Your task to perform on an android device: toggle location history Image 0: 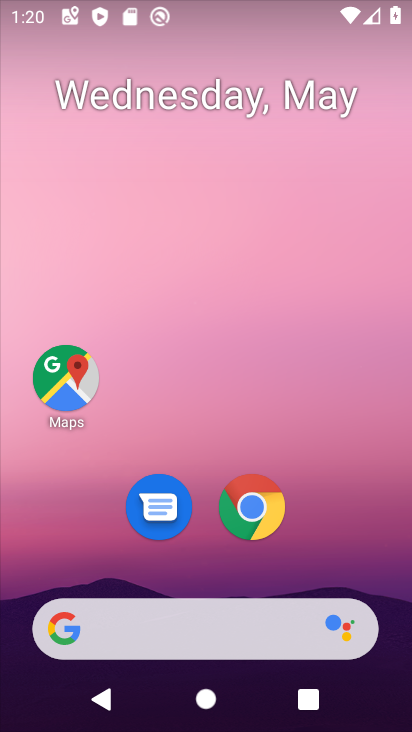
Step 0: drag from (206, 562) to (232, 221)
Your task to perform on an android device: toggle location history Image 1: 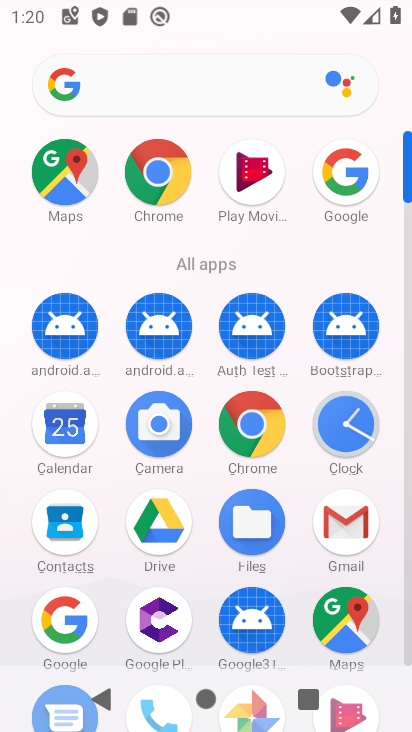
Step 1: drag from (203, 281) to (213, 115)
Your task to perform on an android device: toggle location history Image 2: 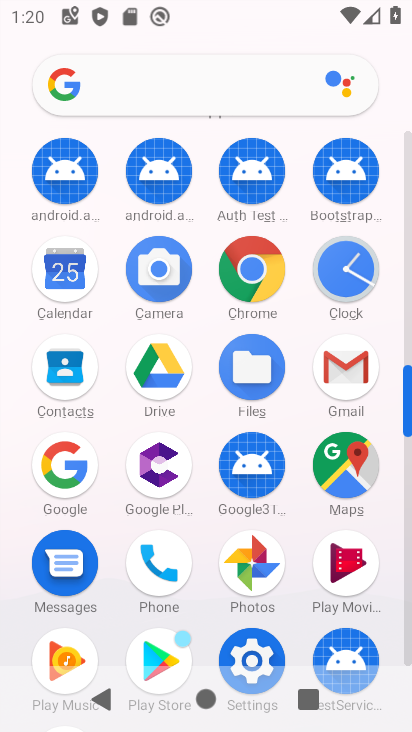
Step 2: click (248, 650)
Your task to perform on an android device: toggle location history Image 3: 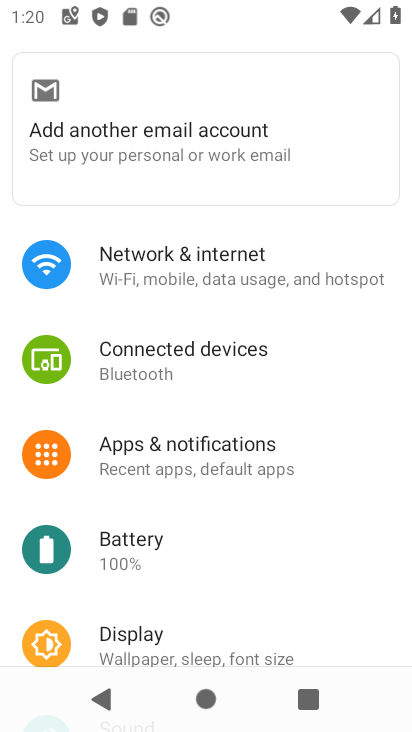
Step 3: drag from (190, 593) to (243, 275)
Your task to perform on an android device: toggle location history Image 4: 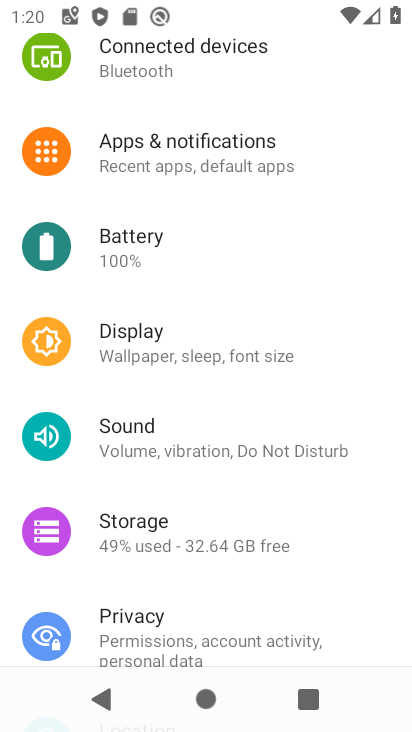
Step 4: drag from (226, 562) to (232, 281)
Your task to perform on an android device: toggle location history Image 5: 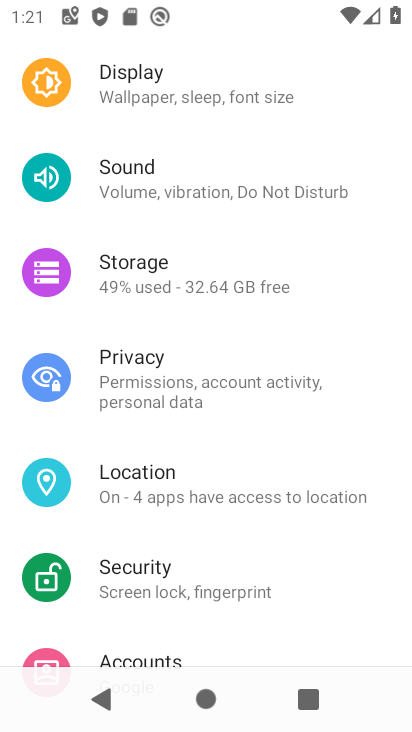
Step 5: click (198, 502)
Your task to perform on an android device: toggle location history Image 6: 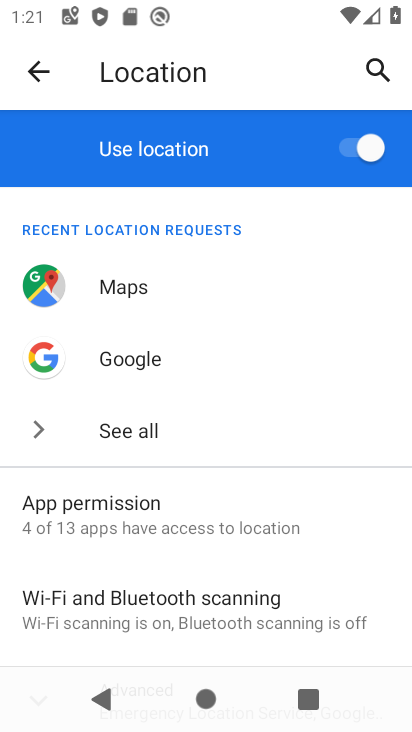
Step 6: drag from (174, 574) to (242, 355)
Your task to perform on an android device: toggle location history Image 7: 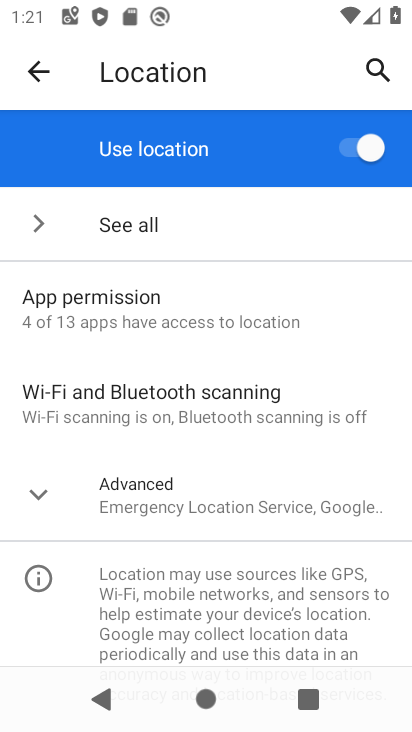
Step 7: click (196, 499)
Your task to perform on an android device: toggle location history Image 8: 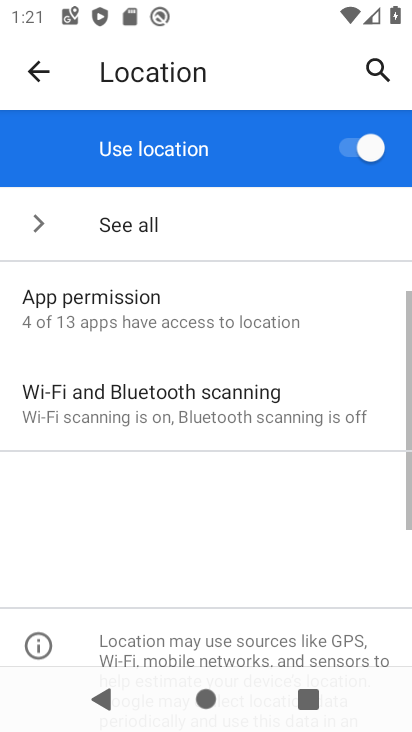
Step 8: drag from (196, 496) to (228, 281)
Your task to perform on an android device: toggle location history Image 9: 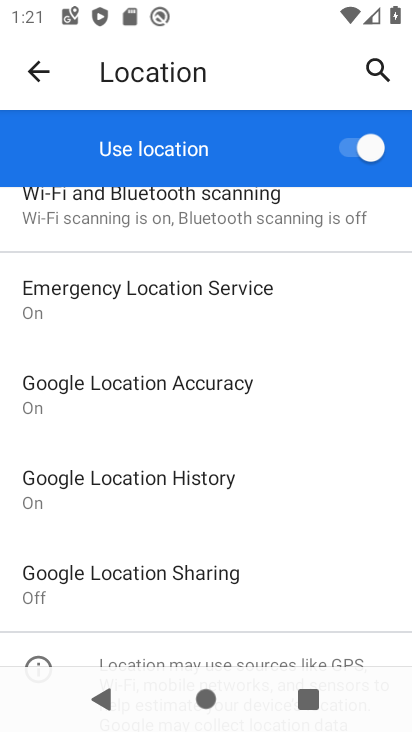
Step 9: click (156, 500)
Your task to perform on an android device: toggle location history Image 10: 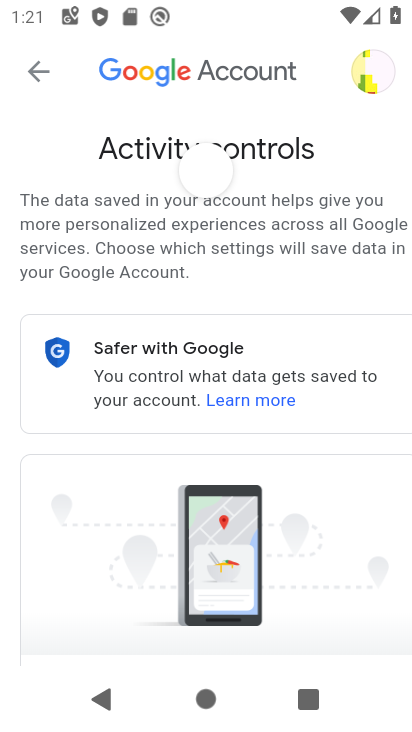
Step 10: drag from (293, 502) to (299, 275)
Your task to perform on an android device: toggle location history Image 11: 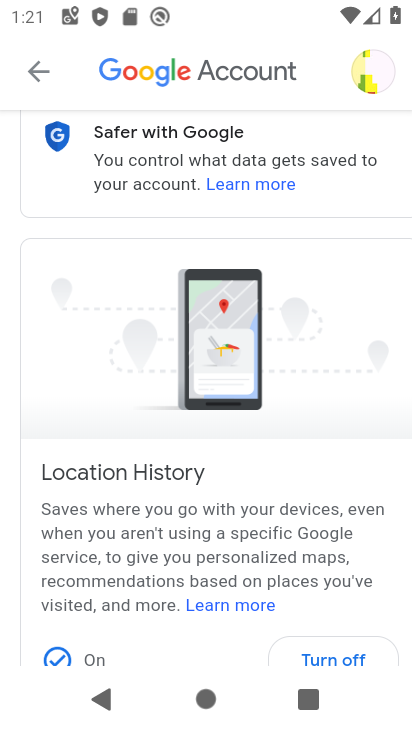
Step 11: drag from (271, 548) to (293, 369)
Your task to perform on an android device: toggle location history Image 12: 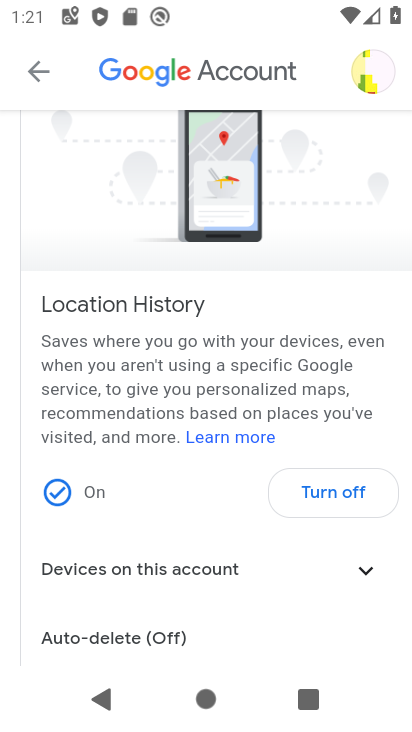
Step 12: click (344, 503)
Your task to perform on an android device: toggle location history Image 13: 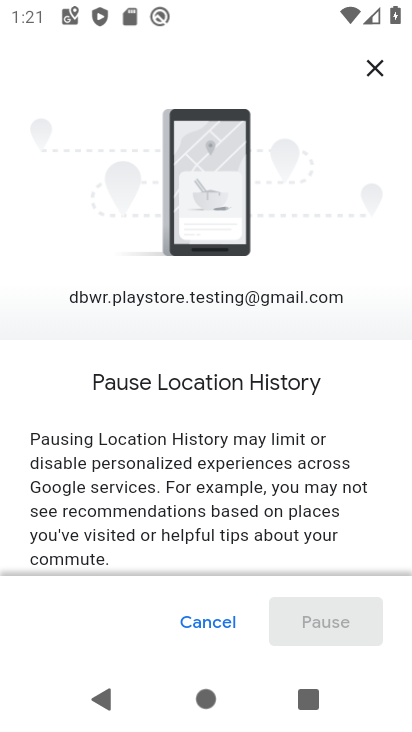
Step 13: drag from (314, 340) to (331, 212)
Your task to perform on an android device: toggle location history Image 14: 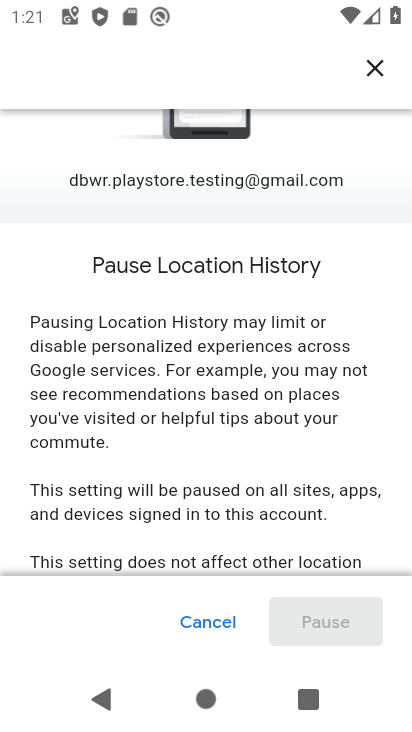
Step 14: drag from (344, 494) to (335, 201)
Your task to perform on an android device: toggle location history Image 15: 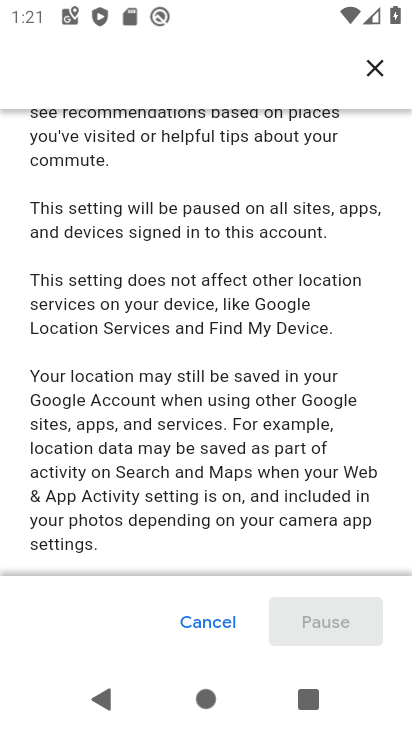
Step 15: drag from (358, 525) to (350, 234)
Your task to perform on an android device: toggle location history Image 16: 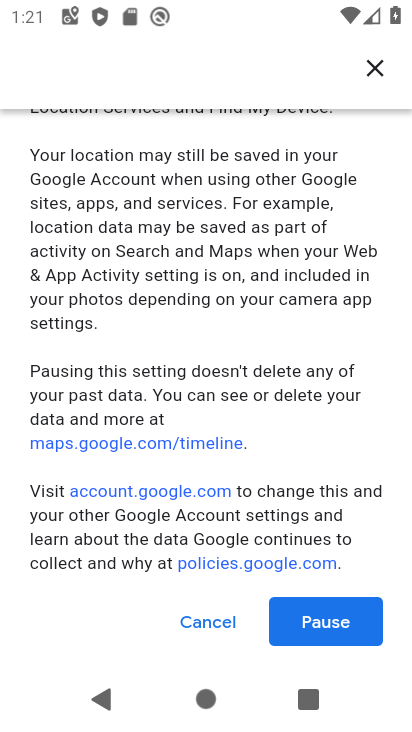
Step 16: click (319, 630)
Your task to perform on an android device: toggle location history Image 17: 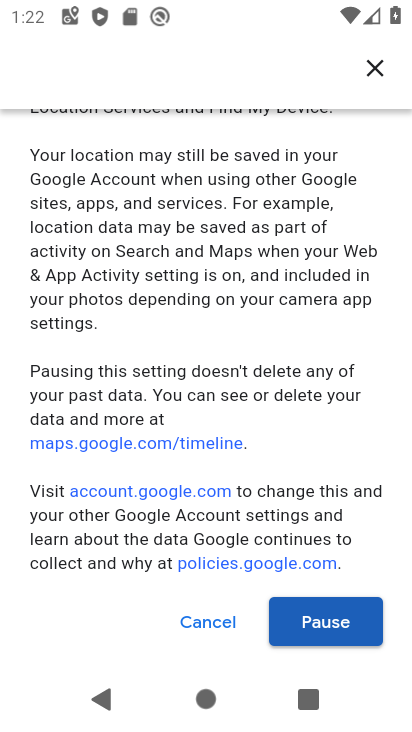
Step 17: click (333, 616)
Your task to perform on an android device: toggle location history Image 18: 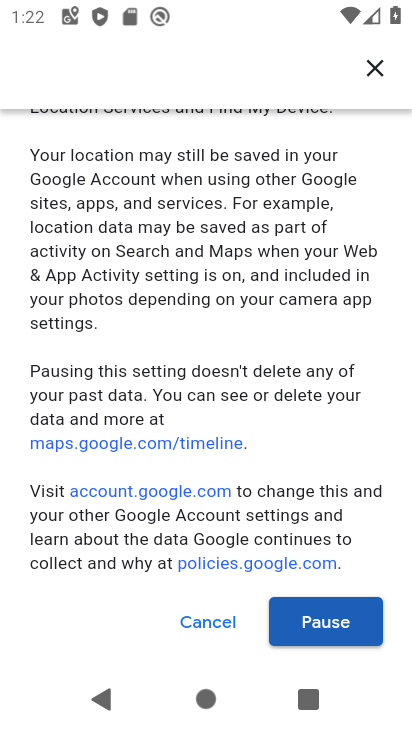
Step 18: click (336, 629)
Your task to perform on an android device: toggle location history Image 19: 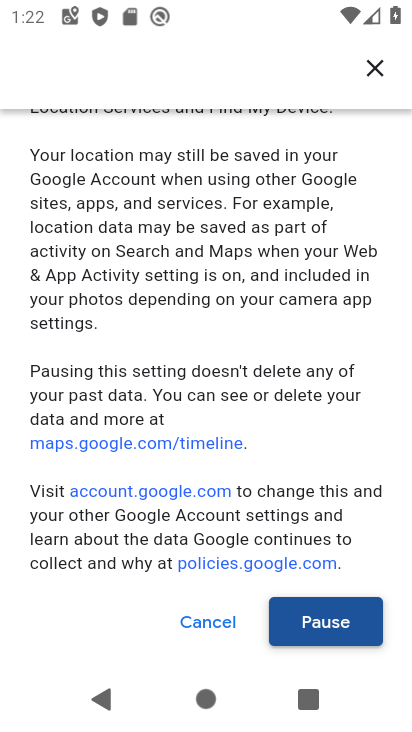
Step 19: drag from (320, 546) to (354, 267)
Your task to perform on an android device: toggle location history Image 20: 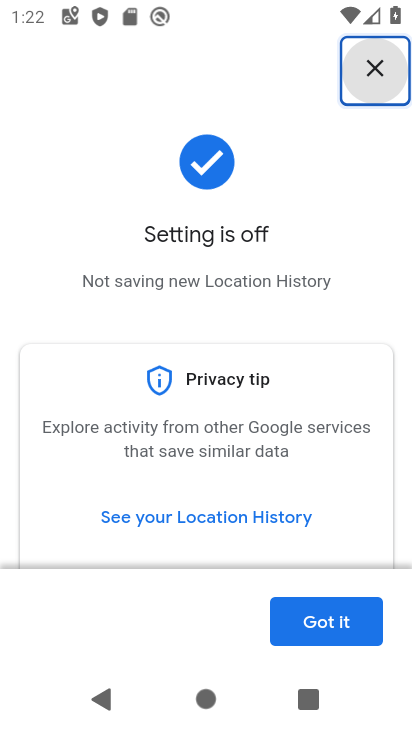
Step 20: click (319, 627)
Your task to perform on an android device: toggle location history Image 21: 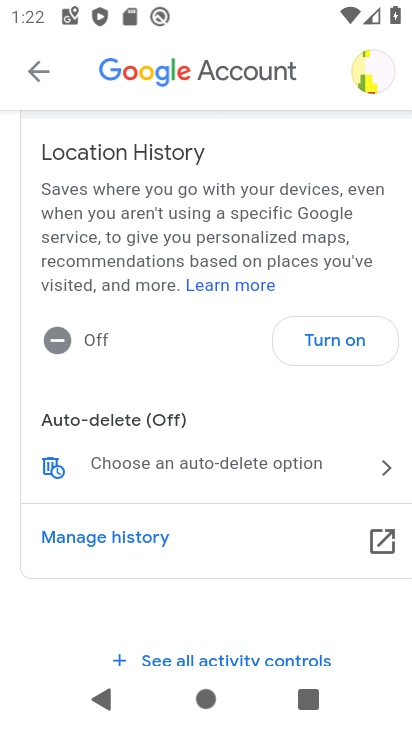
Step 21: task complete